Your task to perform on an android device: What's on my calendar tomorrow? Image 0: 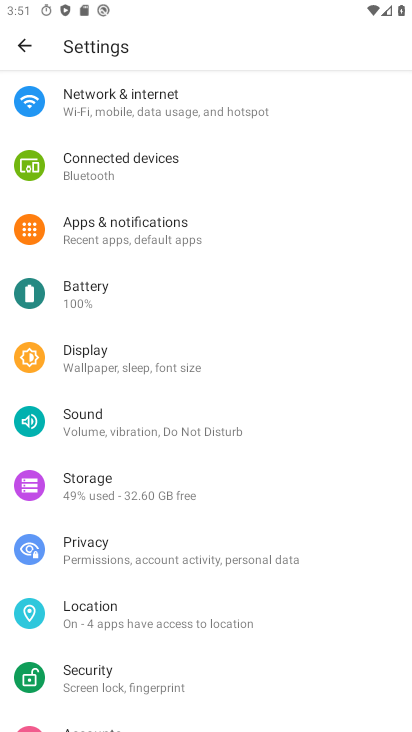
Step 0: press home button
Your task to perform on an android device: What's on my calendar tomorrow? Image 1: 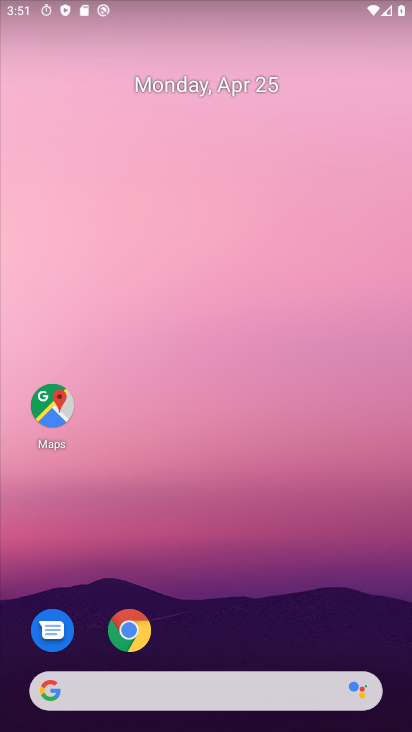
Step 1: drag from (306, 507) to (291, 0)
Your task to perform on an android device: What's on my calendar tomorrow? Image 2: 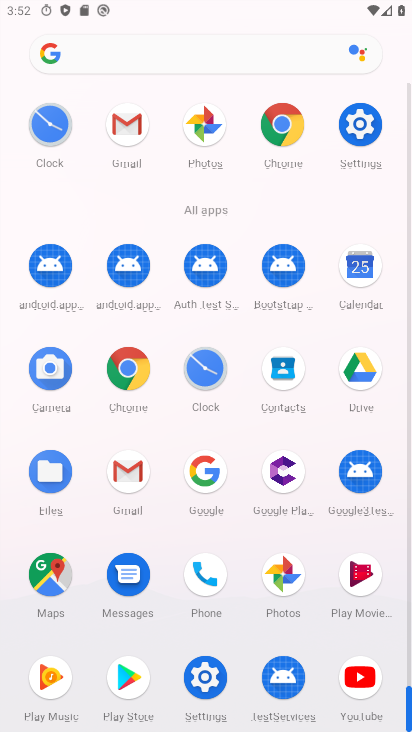
Step 2: click (359, 285)
Your task to perform on an android device: What's on my calendar tomorrow? Image 3: 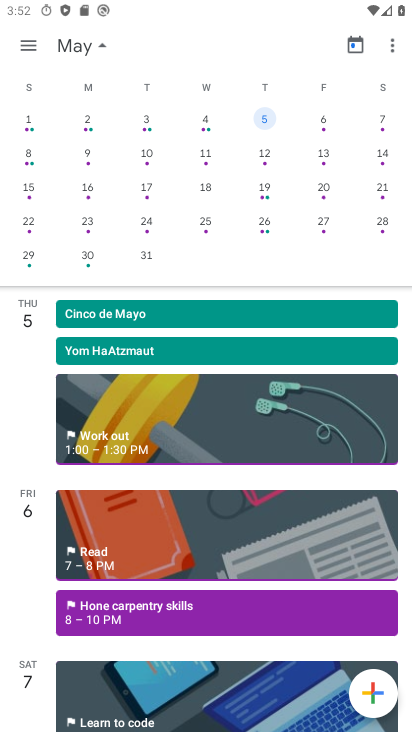
Step 3: click (324, 122)
Your task to perform on an android device: What's on my calendar tomorrow? Image 4: 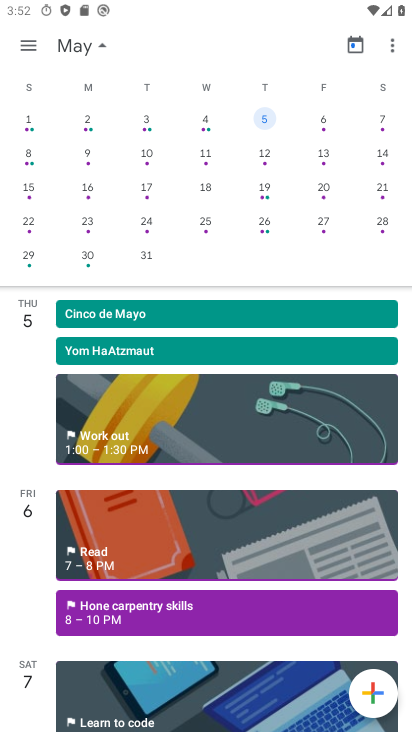
Step 4: click (326, 117)
Your task to perform on an android device: What's on my calendar tomorrow? Image 5: 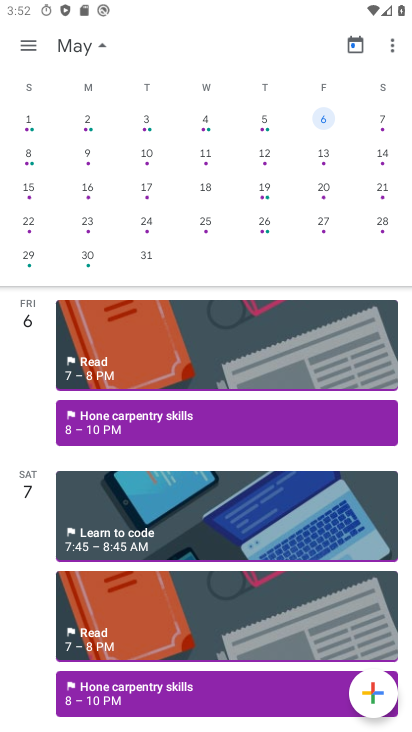
Step 5: task complete